Your task to perform on an android device: What's the weather going to be this weekend? Image 0: 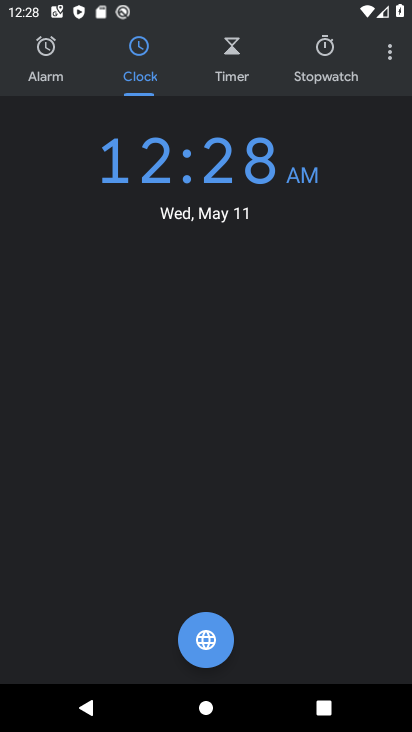
Step 0: press back button
Your task to perform on an android device: What's the weather going to be this weekend? Image 1: 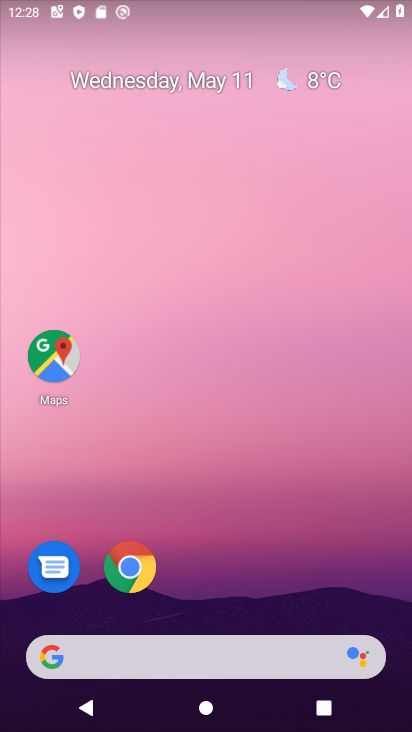
Step 1: click (348, 90)
Your task to perform on an android device: What's the weather going to be this weekend? Image 2: 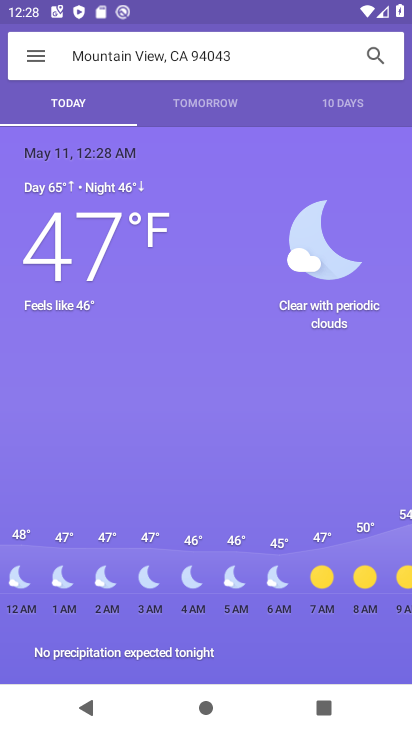
Step 2: click (355, 113)
Your task to perform on an android device: What's the weather going to be this weekend? Image 3: 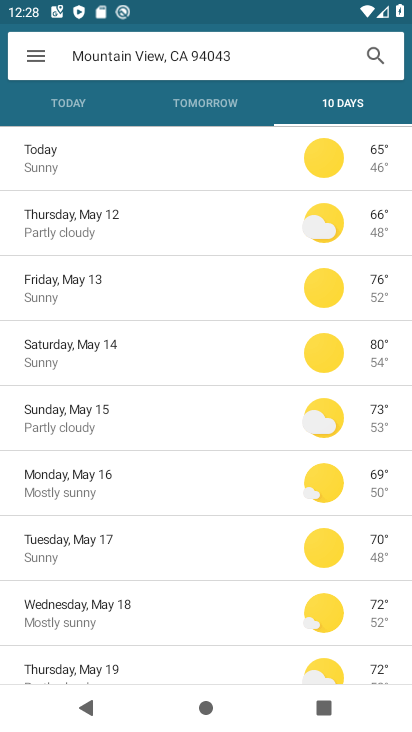
Step 3: task complete